Your task to perform on an android device: toggle sleep mode Image 0: 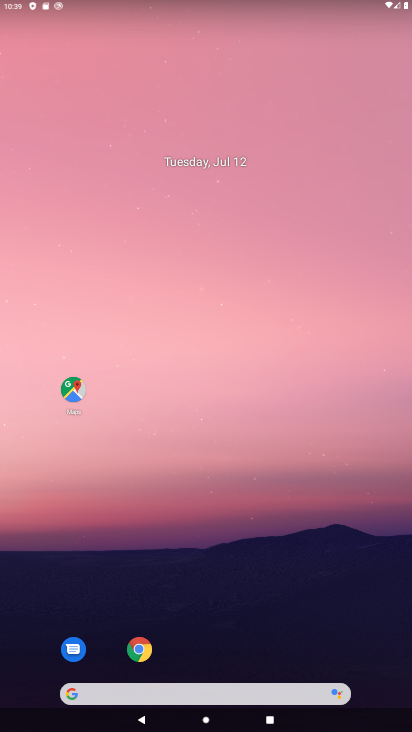
Step 0: drag from (286, 600) to (230, 139)
Your task to perform on an android device: toggle sleep mode Image 1: 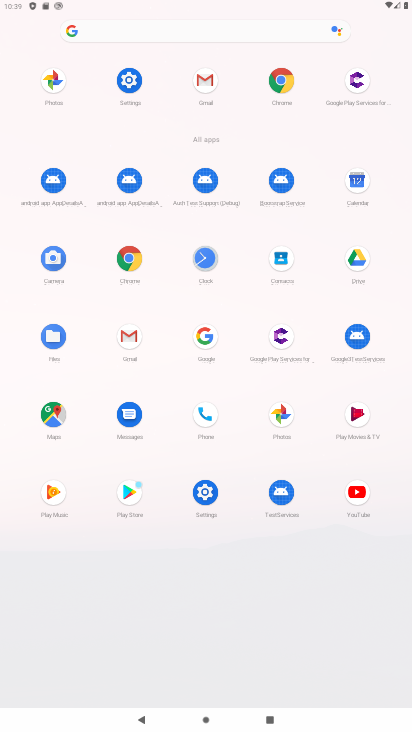
Step 1: click (124, 82)
Your task to perform on an android device: toggle sleep mode Image 2: 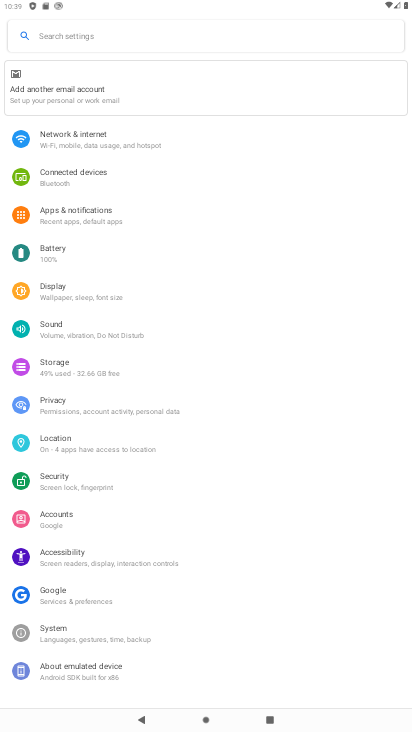
Step 2: click (101, 295)
Your task to perform on an android device: toggle sleep mode Image 3: 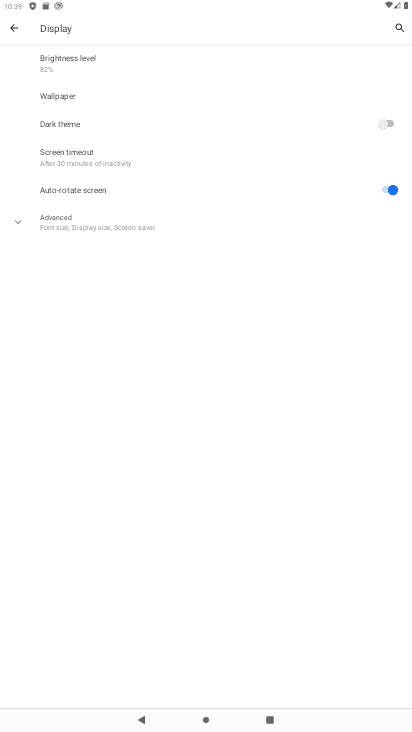
Step 3: click (147, 220)
Your task to perform on an android device: toggle sleep mode Image 4: 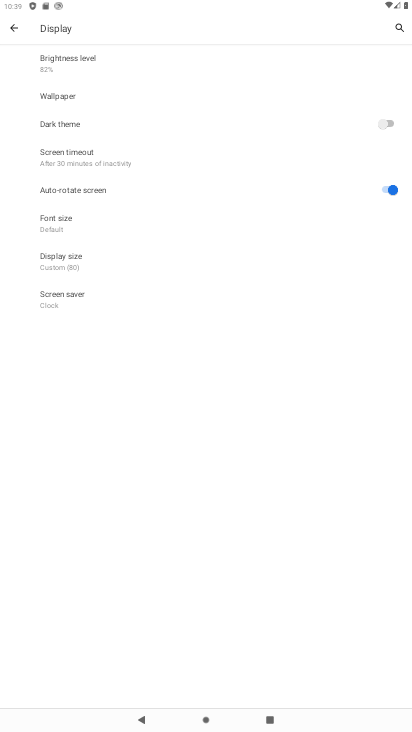
Step 4: task complete